Your task to perform on an android device: change notification settings in the gmail app Image 0: 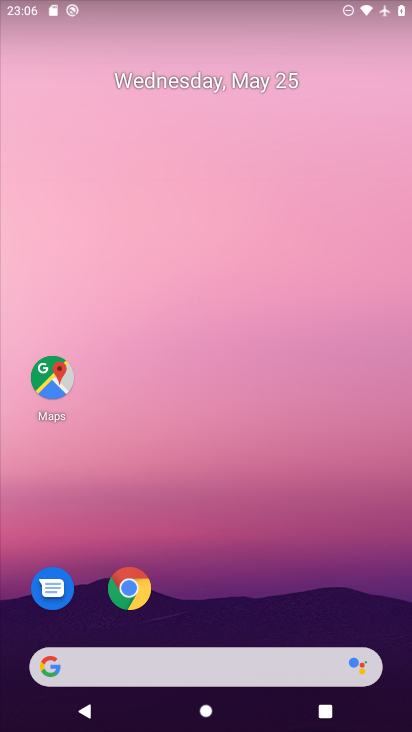
Step 0: drag from (294, 553) to (232, 110)
Your task to perform on an android device: change notification settings in the gmail app Image 1: 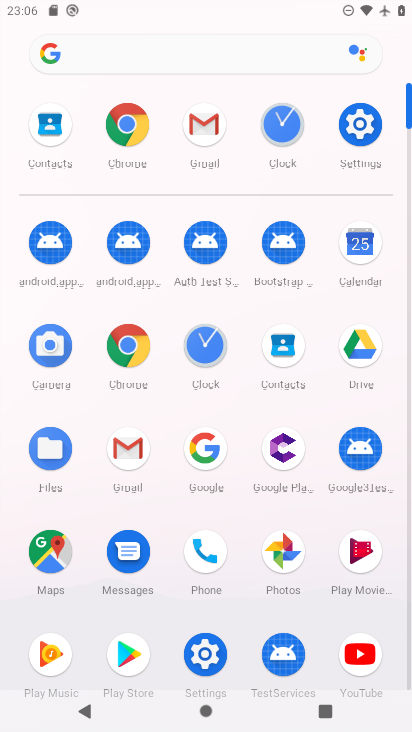
Step 1: click (217, 126)
Your task to perform on an android device: change notification settings in the gmail app Image 2: 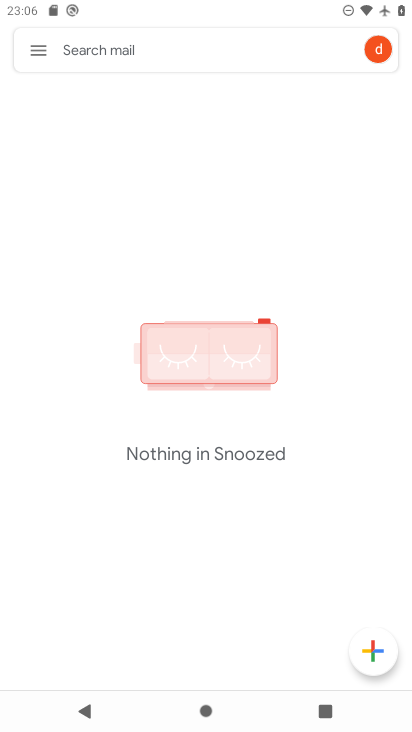
Step 2: click (49, 48)
Your task to perform on an android device: change notification settings in the gmail app Image 3: 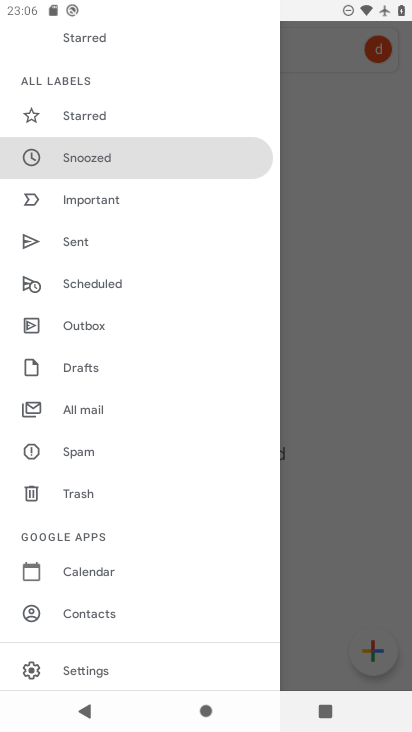
Step 3: drag from (186, 579) to (165, 175)
Your task to perform on an android device: change notification settings in the gmail app Image 4: 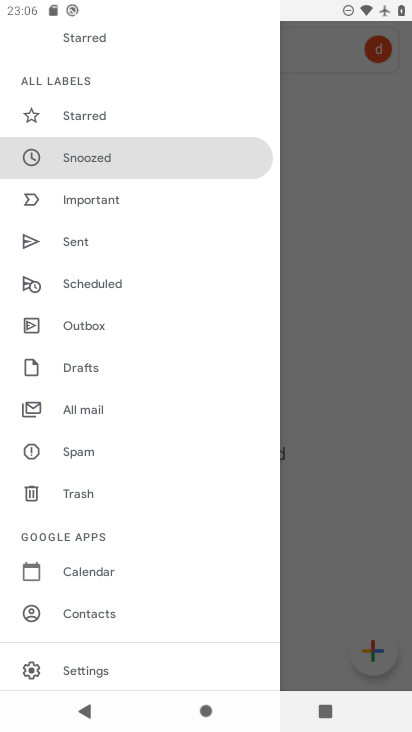
Step 4: drag from (65, 630) to (120, 343)
Your task to perform on an android device: change notification settings in the gmail app Image 5: 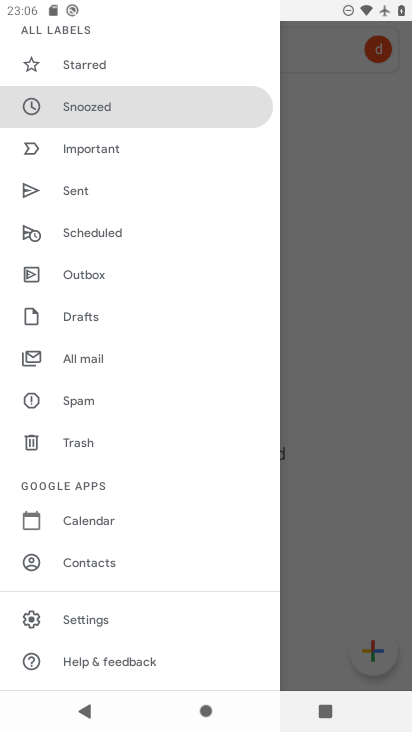
Step 5: click (94, 625)
Your task to perform on an android device: change notification settings in the gmail app Image 6: 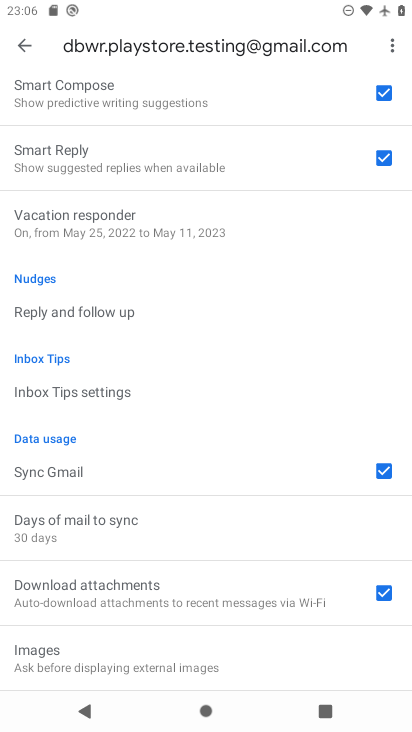
Step 6: drag from (104, 253) to (148, 593)
Your task to perform on an android device: change notification settings in the gmail app Image 7: 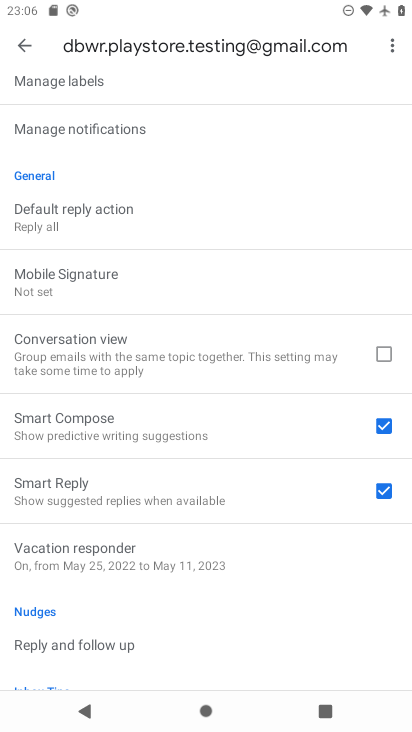
Step 7: drag from (175, 213) to (191, 500)
Your task to perform on an android device: change notification settings in the gmail app Image 8: 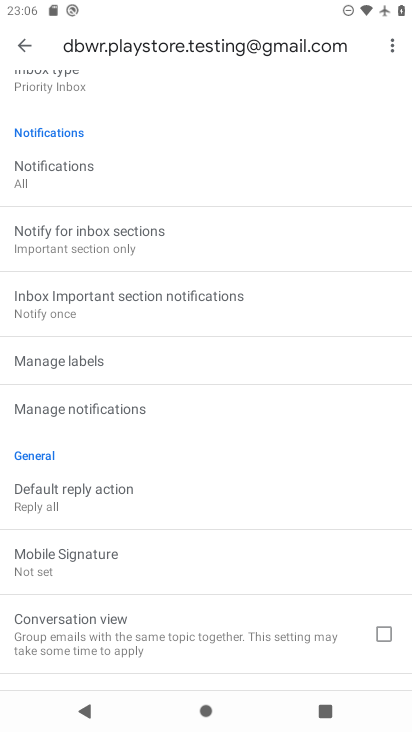
Step 8: click (120, 405)
Your task to perform on an android device: change notification settings in the gmail app Image 9: 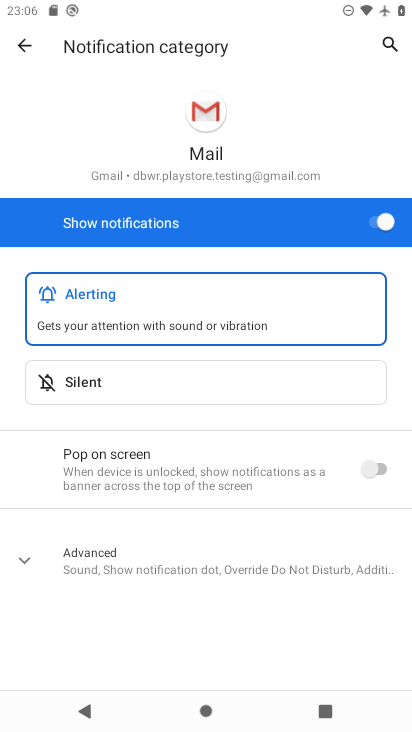
Step 9: click (369, 211)
Your task to perform on an android device: change notification settings in the gmail app Image 10: 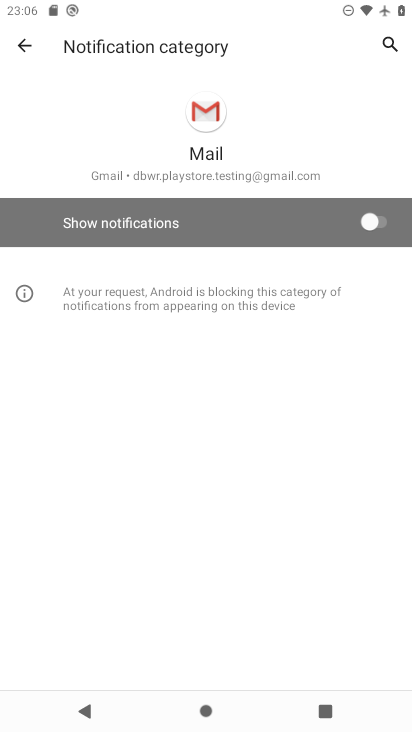
Step 10: task complete